Your task to perform on an android device: create a new album in the google photos Image 0: 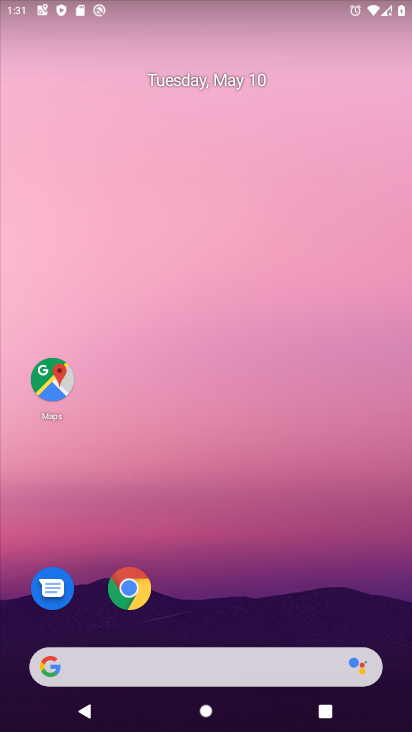
Step 0: drag from (318, 580) to (356, 180)
Your task to perform on an android device: create a new album in the google photos Image 1: 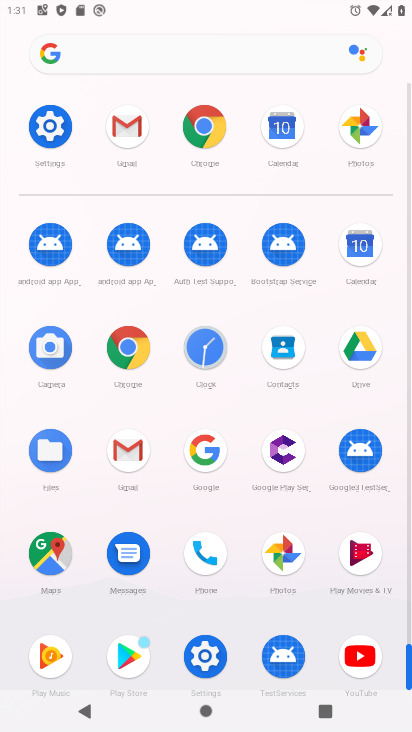
Step 1: click (280, 541)
Your task to perform on an android device: create a new album in the google photos Image 2: 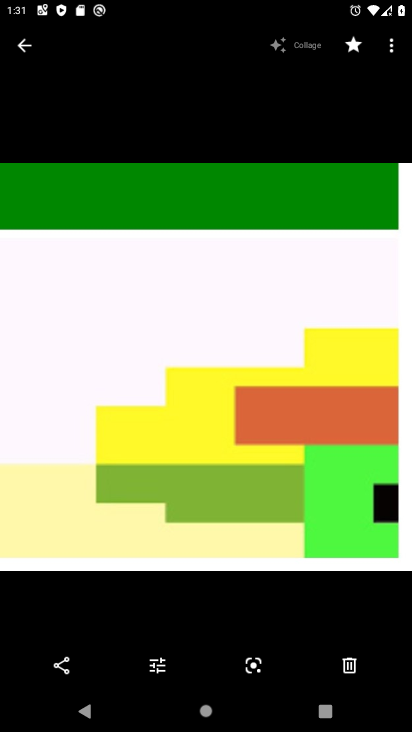
Step 2: click (30, 47)
Your task to perform on an android device: create a new album in the google photos Image 3: 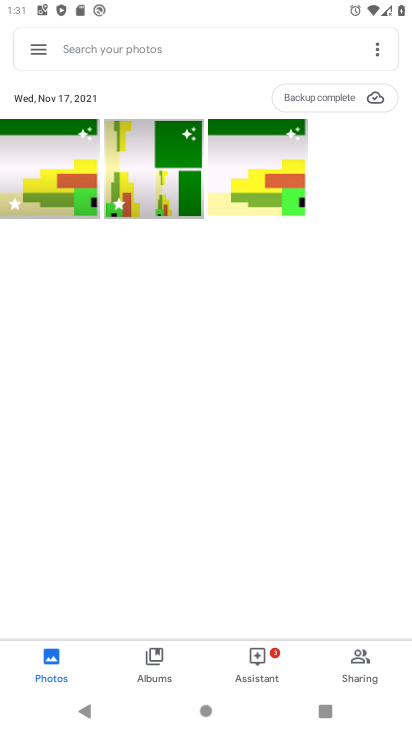
Step 3: click (68, 159)
Your task to perform on an android device: create a new album in the google photos Image 4: 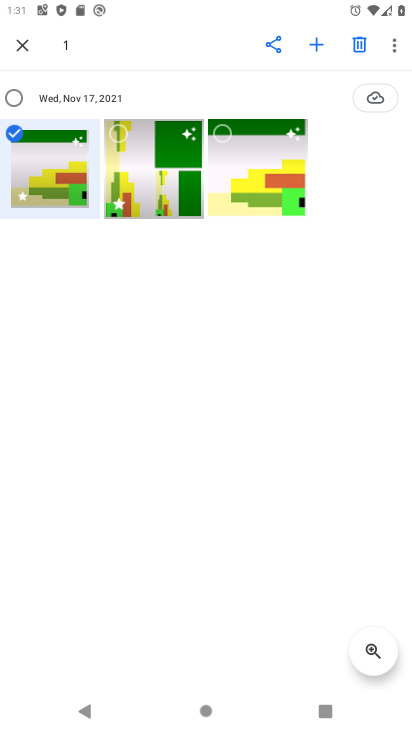
Step 4: click (313, 35)
Your task to perform on an android device: create a new album in the google photos Image 5: 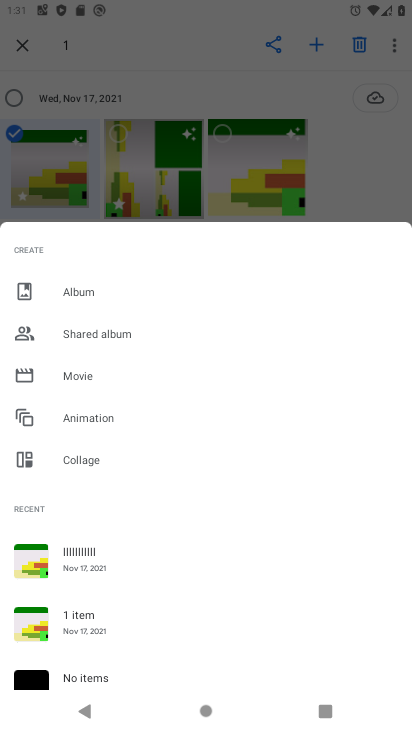
Step 5: click (70, 292)
Your task to perform on an android device: create a new album in the google photos Image 6: 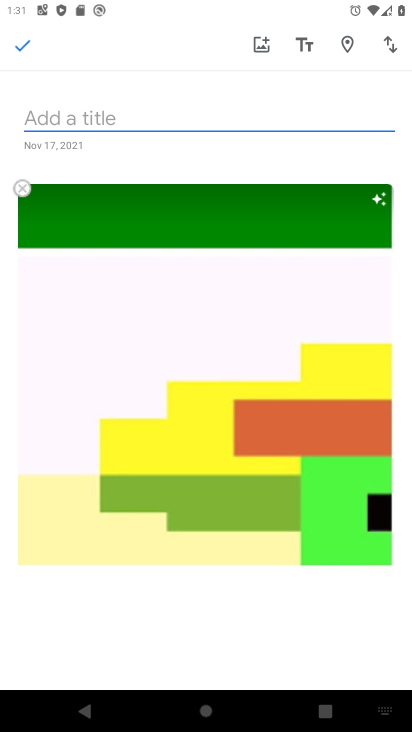
Step 6: click (114, 108)
Your task to perform on an android device: create a new album in the google photos Image 7: 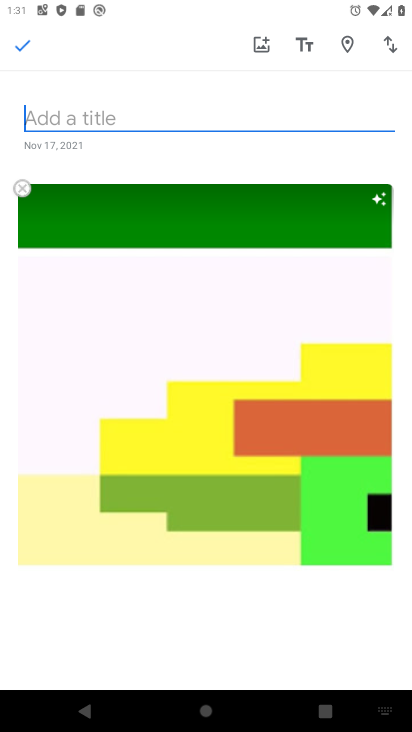
Step 7: type "llllllllllllllllk"
Your task to perform on an android device: create a new album in the google photos Image 8: 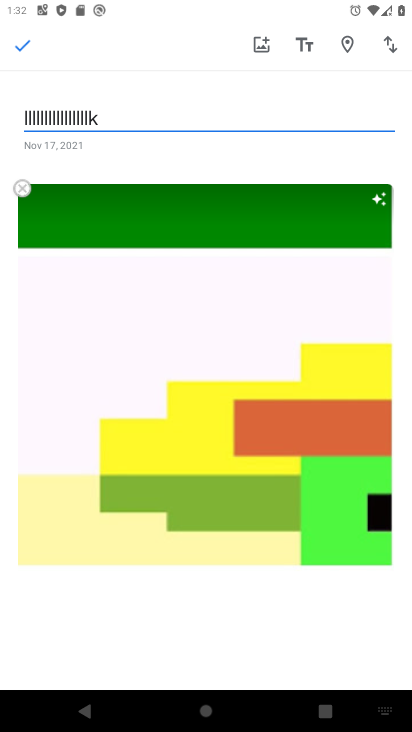
Step 8: click (25, 51)
Your task to perform on an android device: create a new album in the google photos Image 9: 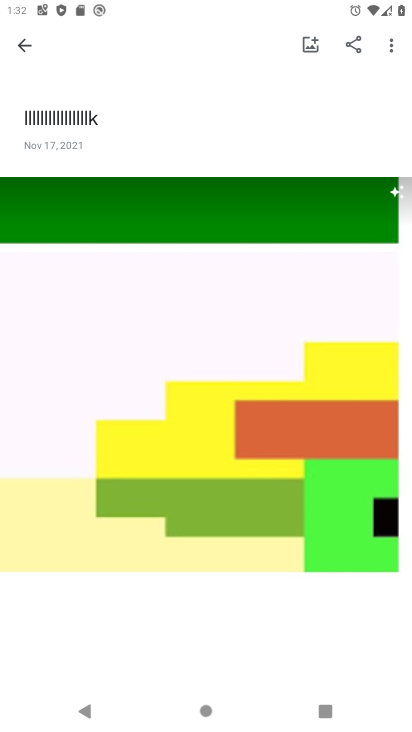
Step 9: task complete